Your task to perform on an android device: Search for sushi restaurants on Maps Image 0: 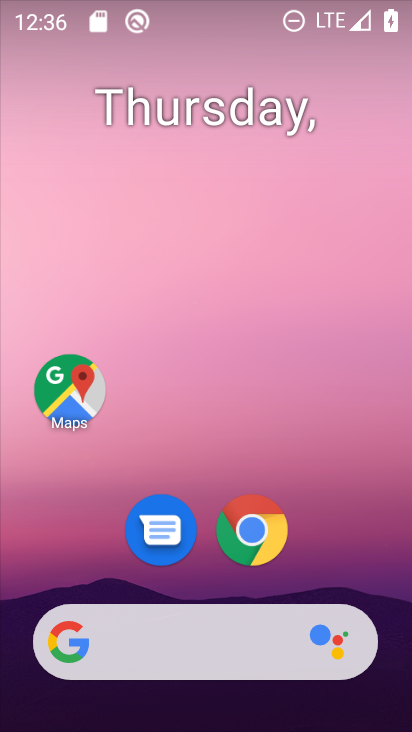
Step 0: click (60, 395)
Your task to perform on an android device: Search for sushi restaurants on Maps Image 1: 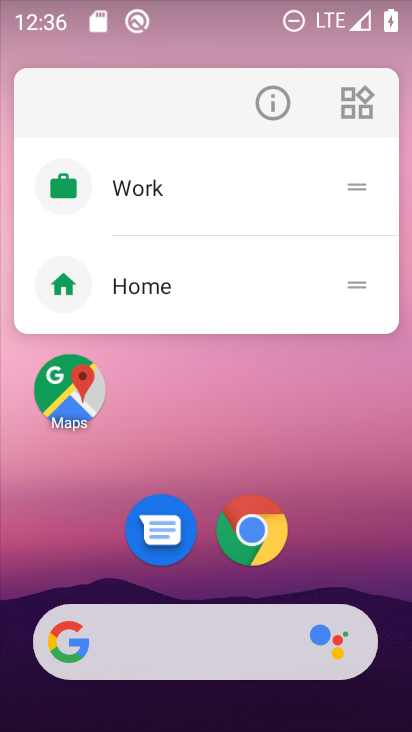
Step 1: click (61, 394)
Your task to perform on an android device: Search for sushi restaurants on Maps Image 2: 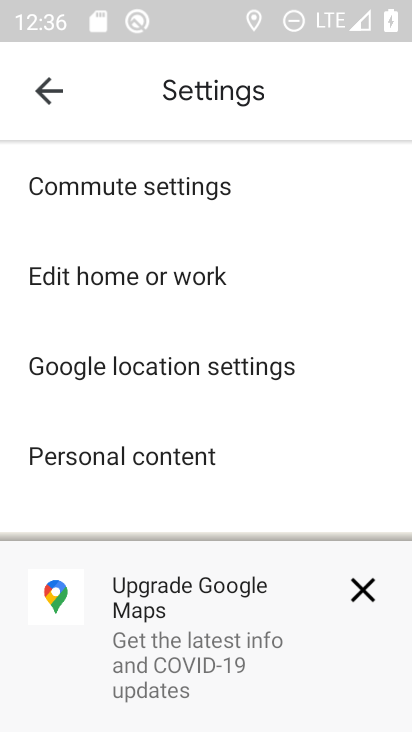
Step 2: click (40, 108)
Your task to perform on an android device: Search for sushi restaurants on Maps Image 3: 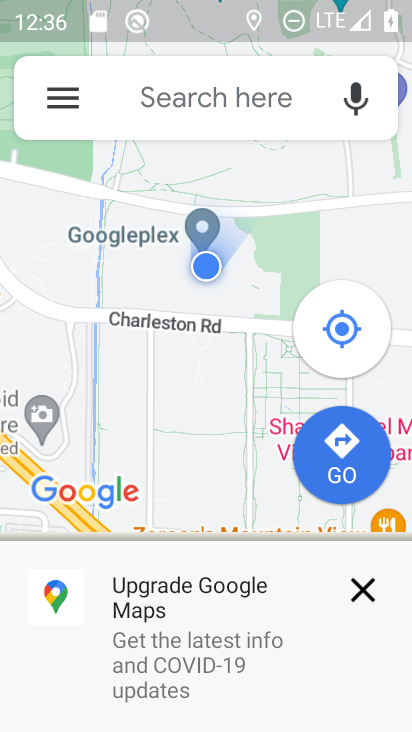
Step 3: click (147, 105)
Your task to perform on an android device: Search for sushi restaurants on Maps Image 4: 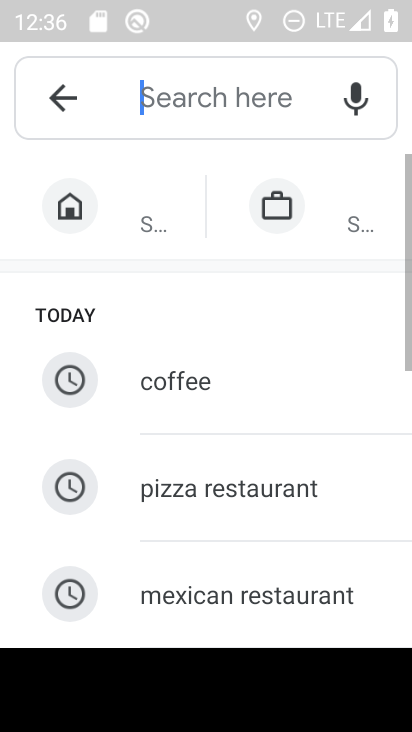
Step 4: drag from (231, 575) to (139, 168)
Your task to perform on an android device: Search for sushi restaurants on Maps Image 5: 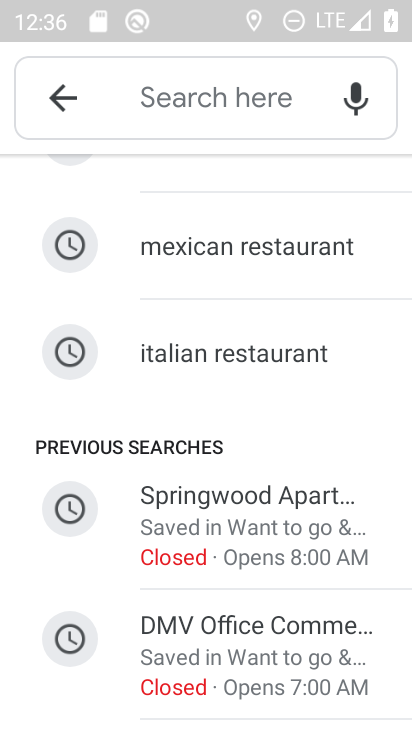
Step 5: click (214, 95)
Your task to perform on an android device: Search for sushi restaurants on Maps Image 6: 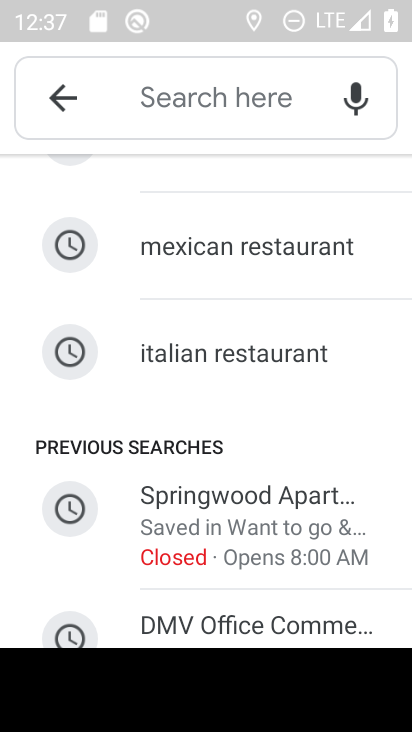
Step 6: type "sushi restauarstns"
Your task to perform on an android device: Search for sushi restaurants on Maps Image 7: 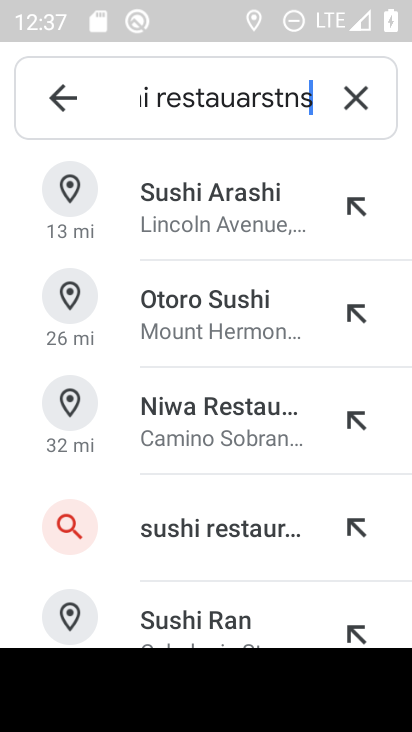
Step 7: click (219, 523)
Your task to perform on an android device: Search for sushi restaurants on Maps Image 8: 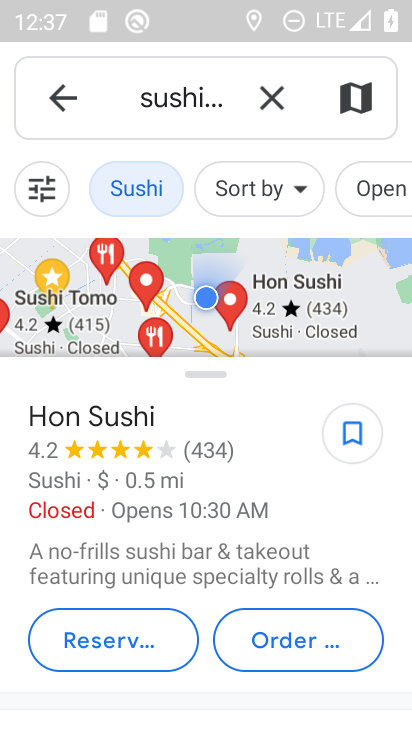
Step 8: task complete